Your task to perform on an android device: toggle wifi Image 0: 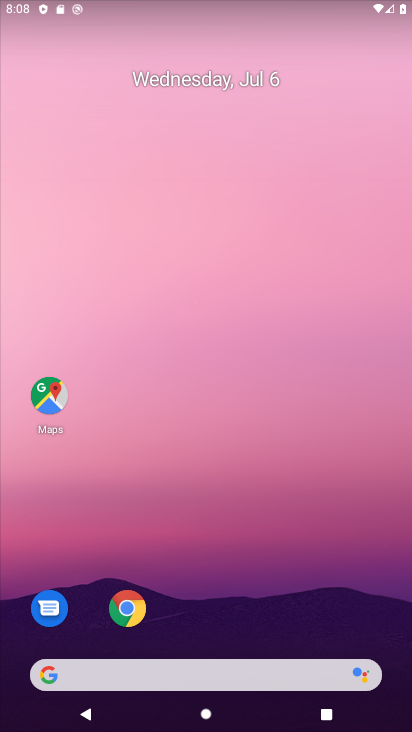
Step 0: click (385, 633)
Your task to perform on an android device: toggle wifi Image 1: 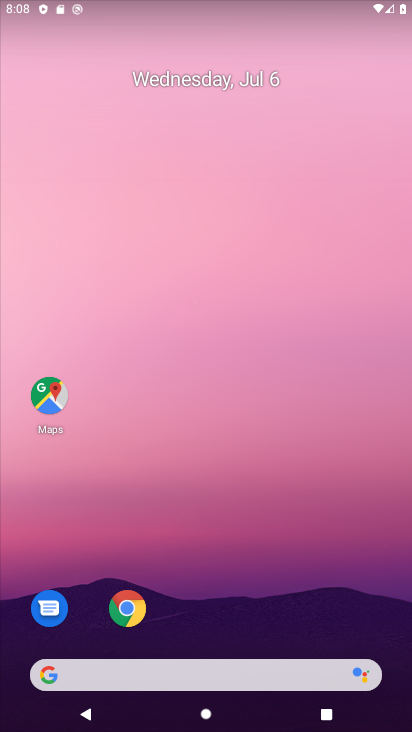
Step 1: click (381, 63)
Your task to perform on an android device: toggle wifi Image 2: 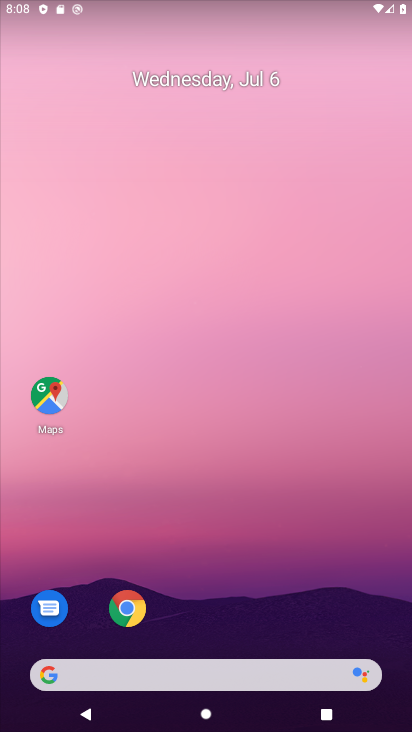
Step 2: drag from (143, 5) to (107, 631)
Your task to perform on an android device: toggle wifi Image 3: 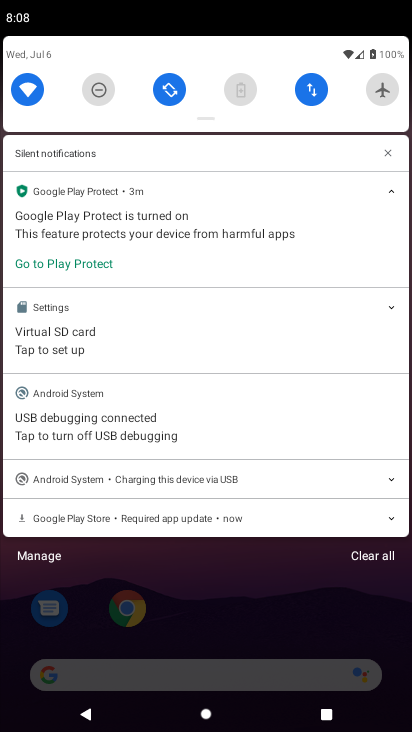
Step 3: click (36, 94)
Your task to perform on an android device: toggle wifi Image 4: 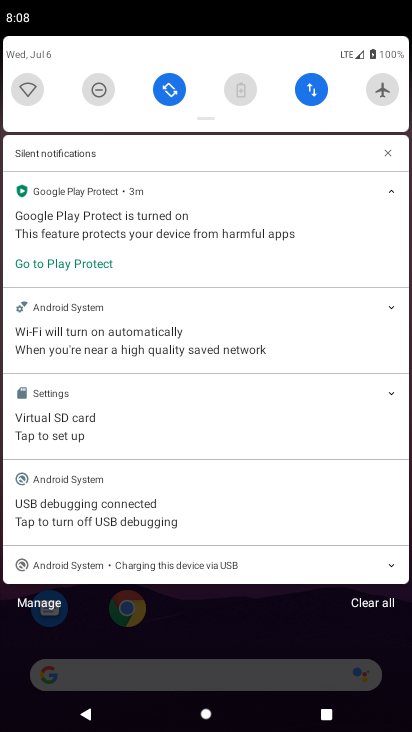
Step 4: task complete